Your task to perform on an android device: Search for "usb-c to usb-a" on amazon.com, select the first entry, and add it to the cart. Image 0: 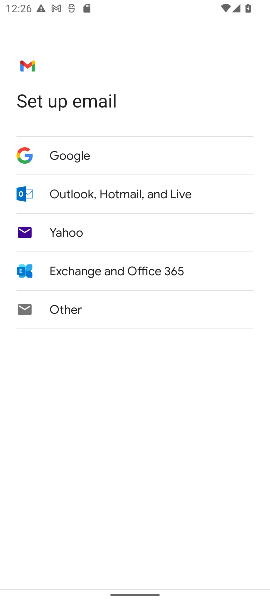
Step 0: press home button
Your task to perform on an android device: Search for "usb-c to usb-a" on amazon.com, select the first entry, and add it to the cart. Image 1: 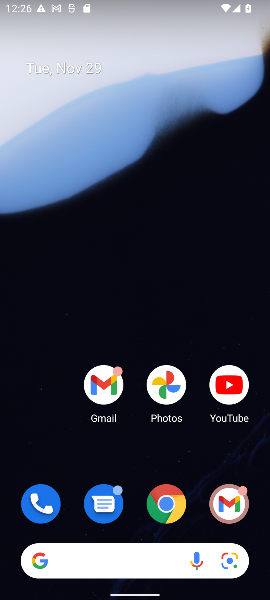
Step 1: click (168, 506)
Your task to perform on an android device: Search for "usb-c to usb-a" on amazon.com, select the first entry, and add it to the cart. Image 2: 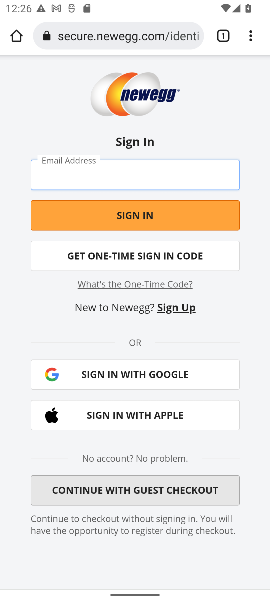
Step 2: click (96, 33)
Your task to perform on an android device: Search for "usb-c to usb-a" on amazon.com, select the first entry, and add it to the cart. Image 3: 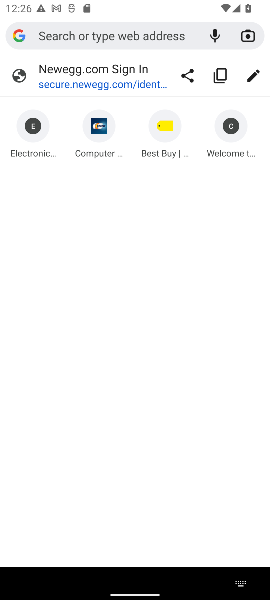
Step 3: type "amazon.com"
Your task to perform on an android device: Search for "usb-c to usb-a" on amazon.com, select the first entry, and add it to the cart. Image 4: 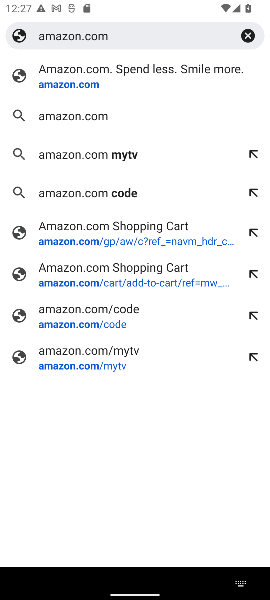
Step 4: click (71, 86)
Your task to perform on an android device: Search for "usb-c to usb-a" on amazon.com, select the first entry, and add it to the cart. Image 5: 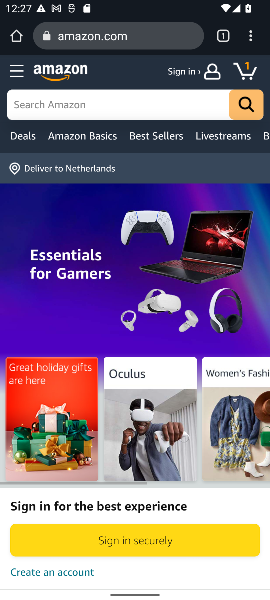
Step 5: click (48, 102)
Your task to perform on an android device: Search for "usb-c to usb-a" on amazon.com, select the first entry, and add it to the cart. Image 6: 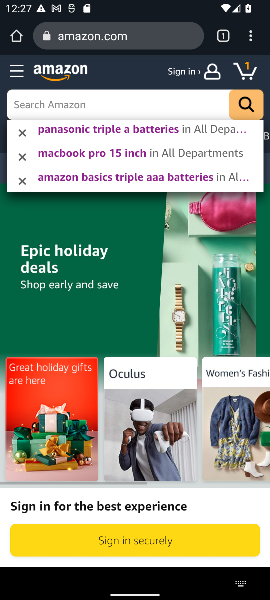
Step 6: type "usb-c to usb-a"
Your task to perform on an android device: Search for "usb-c to usb-a" on amazon.com, select the first entry, and add it to the cart. Image 7: 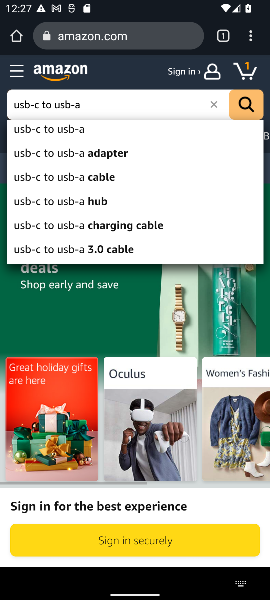
Step 7: click (37, 131)
Your task to perform on an android device: Search for "usb-c to usb-a" on amazon.com, select the first entry, and add it to the cart. Image 8: 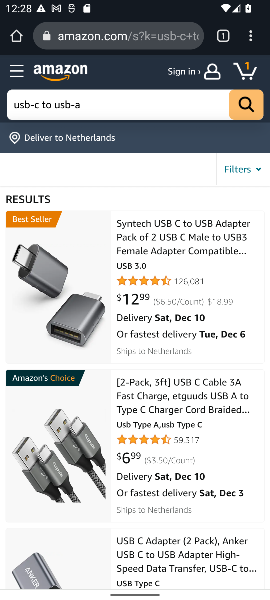
Step 8: click (160, 247)
Your task to perform on an android device: Search for "usb-c to usb-a" on amazon.com, select the first entry, and add it to the cart. Image 9: 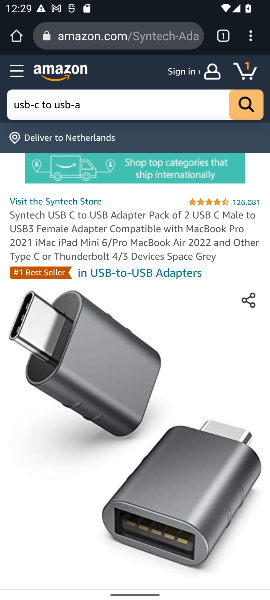
Step 9: task complete